Your task to perform on an android device: Add "bose soundlink" to the cart on target.com Image 0: 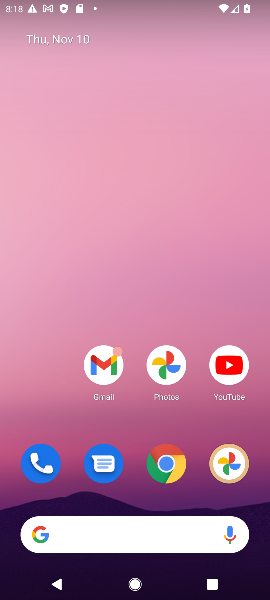
Step 0: click (165, 462)
Your task to perform on an android device: Add "bose soundlink" to the cart on target.com Image 1: 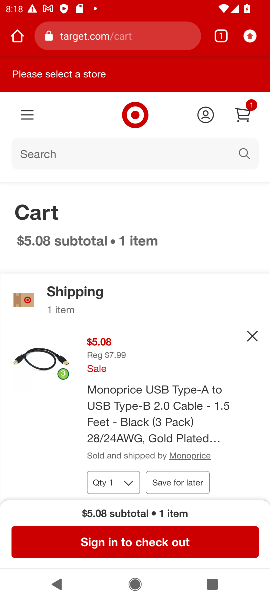
Step 1: click (134, 36)
Your task to perform on an android device: Add "bose soundlink" to the cart on target.com Image 2: 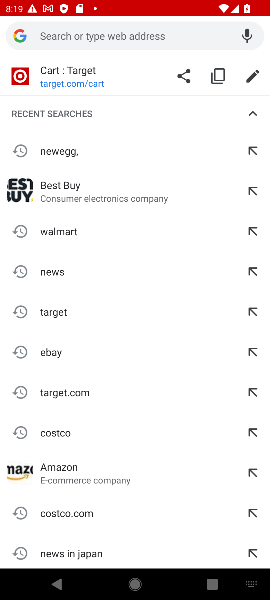
Step 2: click (50, 310)
Your task to perform on an android device: Add "bose soundlink" to the cart on target.com Image 3: 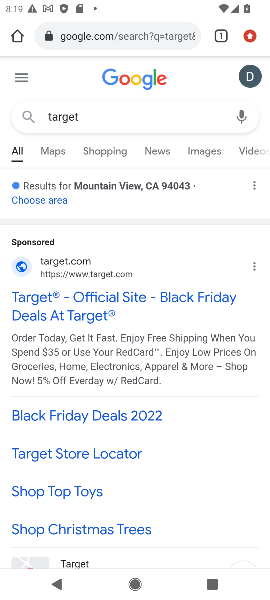
Step 3: click (90, 294)
Your task to perform on an android device: Add "bose soundlink" to the cart on target.com Image 4: 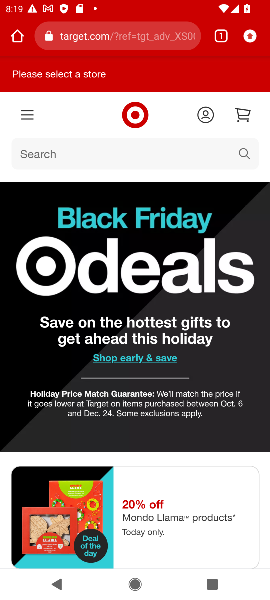
Step 4: click (64, 150)
Your task to perform on an android device: Add "bose soundlink" to the cart on target.com Image 5: 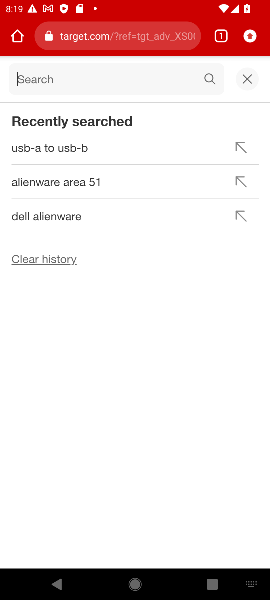
Step 5: type "bose soundlink"
Your task to perform on an android device: Add "bose soundlink" to the cart on target.com Image 6: 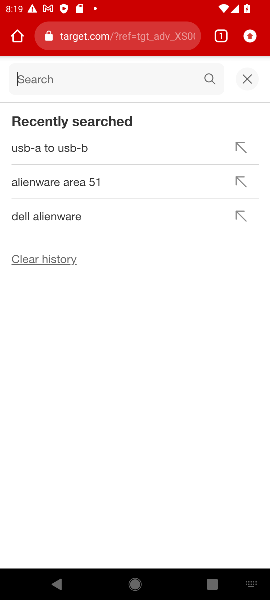
Step 6: press enter
Your task to perform on an android device: Add "bose soundlink" to the cart on target.com Image 7: 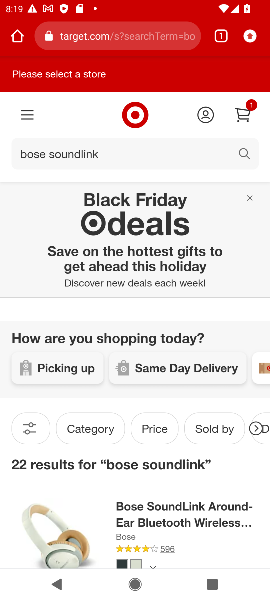
Step 7: drag from (83, 479) to (150, 360)
Your task to perform on an android device: Add "bose soundlink" to the cart on target.com Image 8: 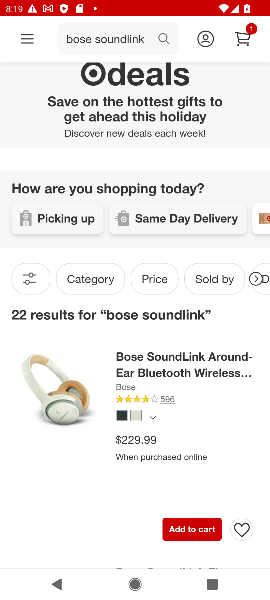
Step 8: click (200, 528)
Your task to perform on an android device: Add "bose soundlink" to the cart on target.com Image 9: 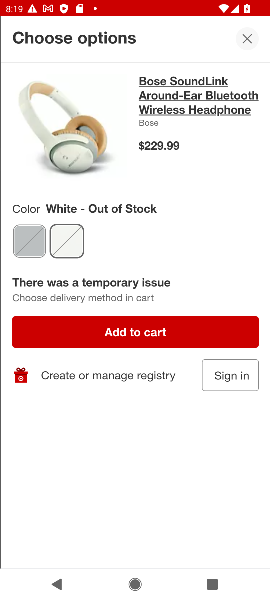
Step 9: click (153, 334)
Your task to perform on an android device: Add "bose soundlink" to the cart on target.com Image 10: 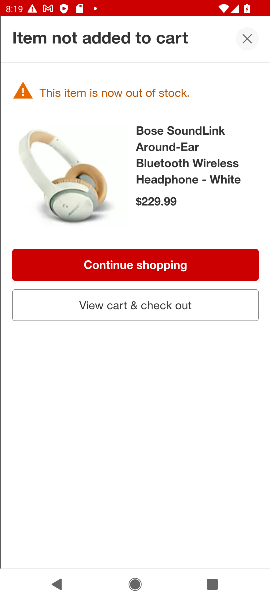
Step 10: click (129, 307)
Your task to perform on an android device: Add "bose soundlink" to the cart on target.com Image 11: 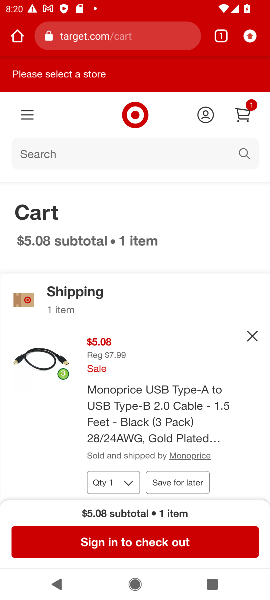
Step 11: drag from (179, 374) to (269, 55)
Your task to perform on an android device: Add "bose soundlink" to the cart on target.com Image 12: 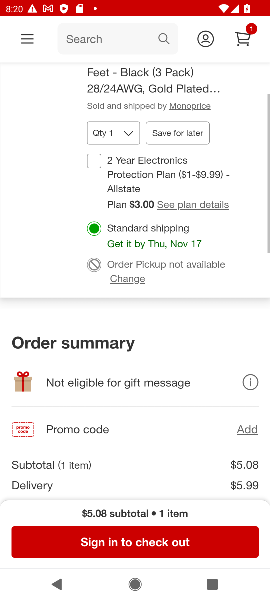
Step 12: drag from (208, 91) to (105, 487)
Your task to perform on an android device: Add "bose soundlink" to the cart on target.com Image 13: 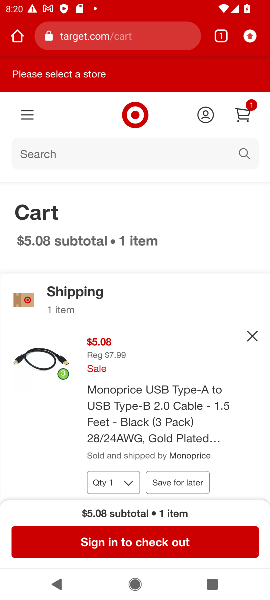
Step 13: press back button
Your task to perform on an android device: Add "bose soundlink" to the cart on target.com Image 14: 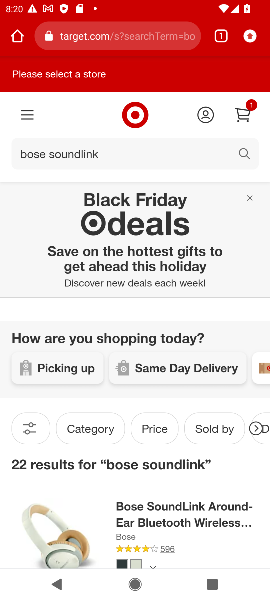
Step 14: drag from (129, 500) to (208, 142)
Your task to perform on an android device: Add "bose soundlink" to the cart on target.com Image 15: 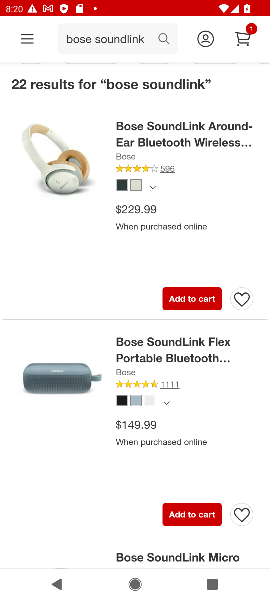
Step 15: click (191, 296)
Your task to perform on an android device: Add "bose soundlink" to the cart on target.com Image 16: 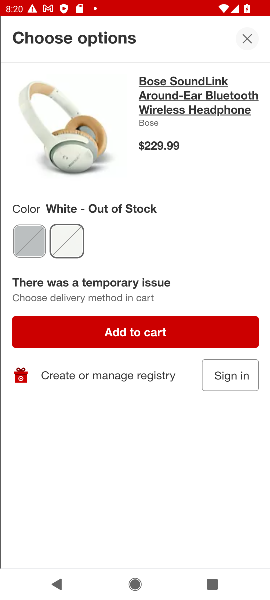
Step 16: task complete